Your task to perform on an android device: Open calendar and show me the fourth week of next month Image 0: 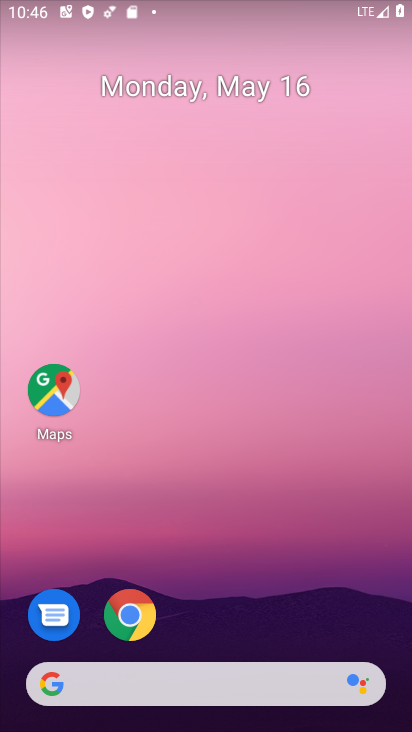
Step 0: drag from (238, 616) to (180, 167)
Your task to perform on an android device: Open calendar and show me the fourth week of next month Image 1: 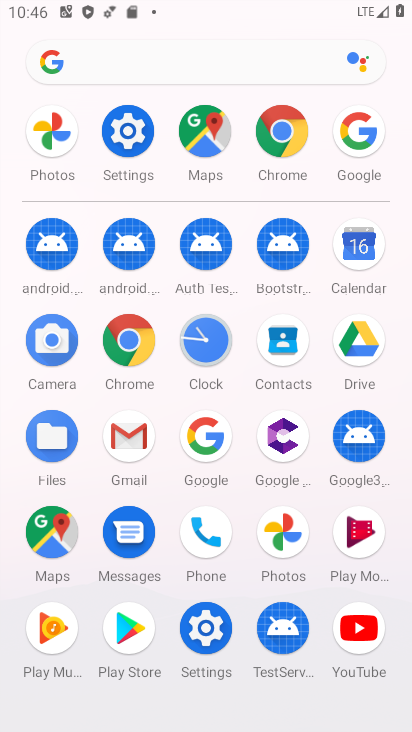
Step 1: click (353, 278)
Your task to perform on an android device: Open calendar and show me the fourth week of next month Image 2: 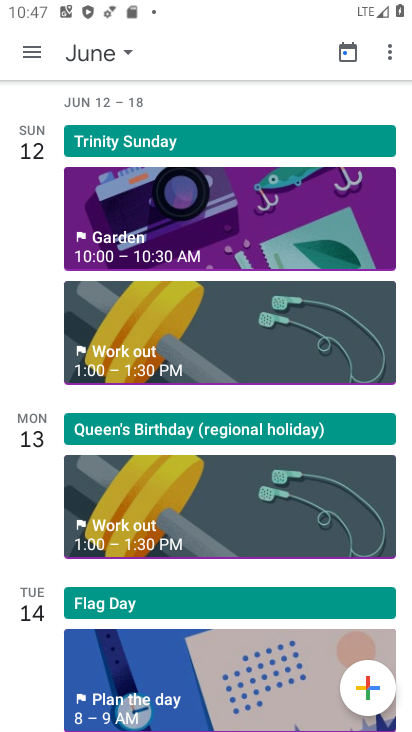
Step 2: click (101, 56)
Your task to perform on an android device: Open calendar and show me the fourth week of next month Image 3: 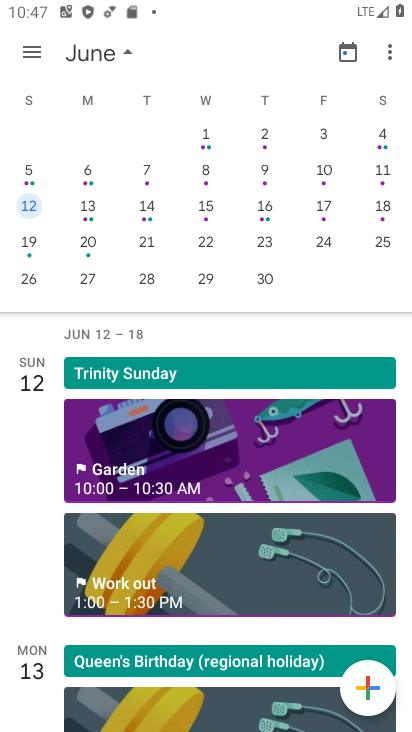
Step 3: click (33, 286)
Your task to perform on an android device: Open calendar and show me the fourth week of next month Image 4: 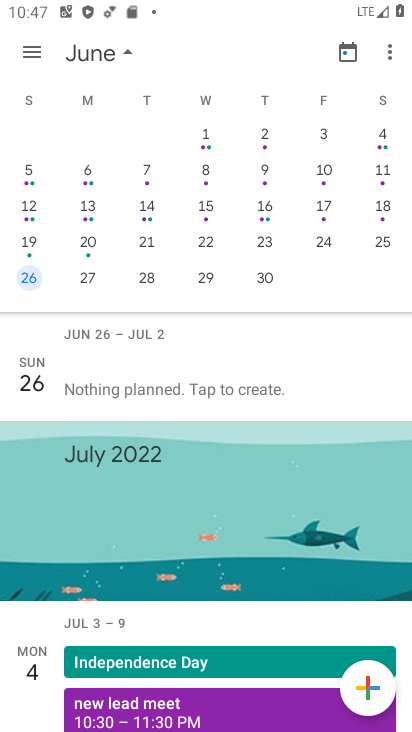
Step 4: task complete